Your task to perform on an android device: Go to wifi settings Image 0: 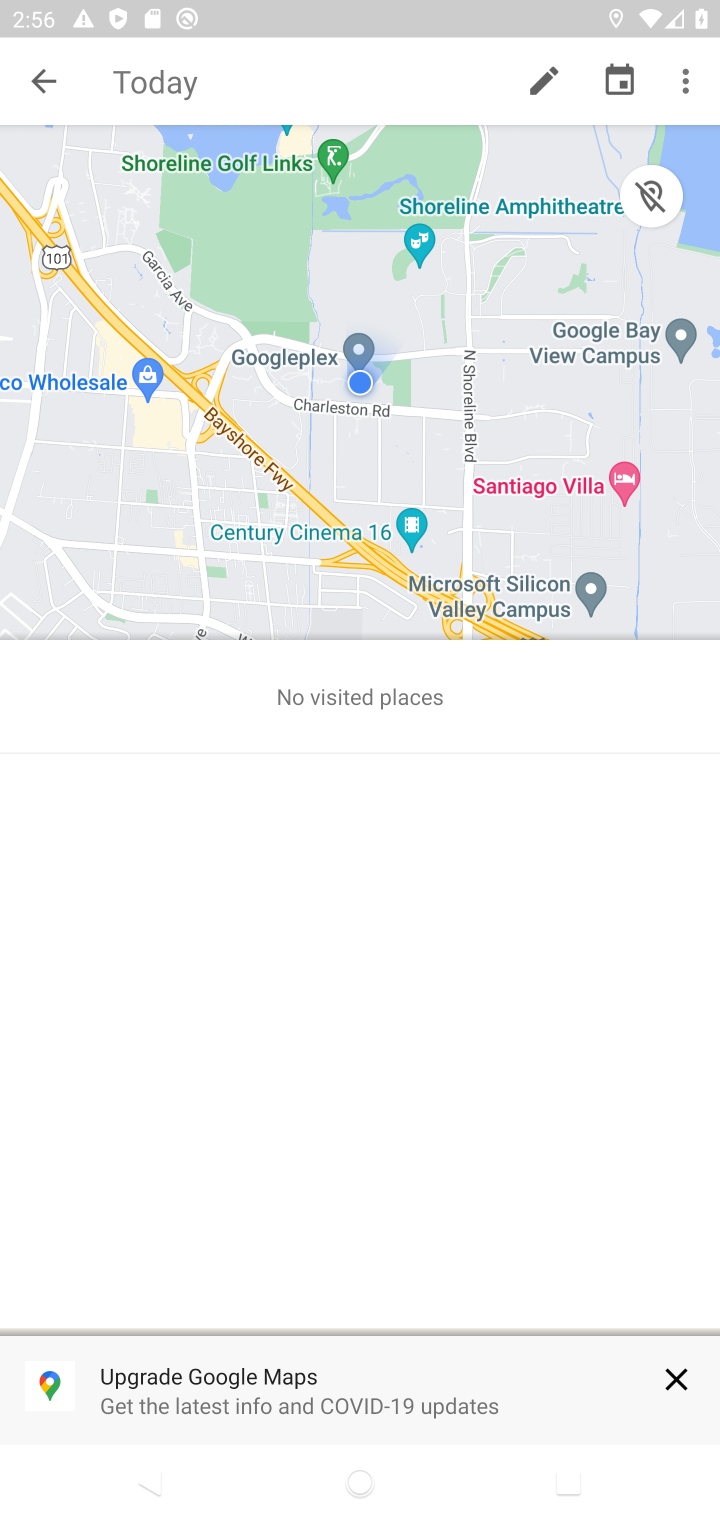
Step 0: press home button
Your task to perform on an android device: Go to wifi settings Image 1: 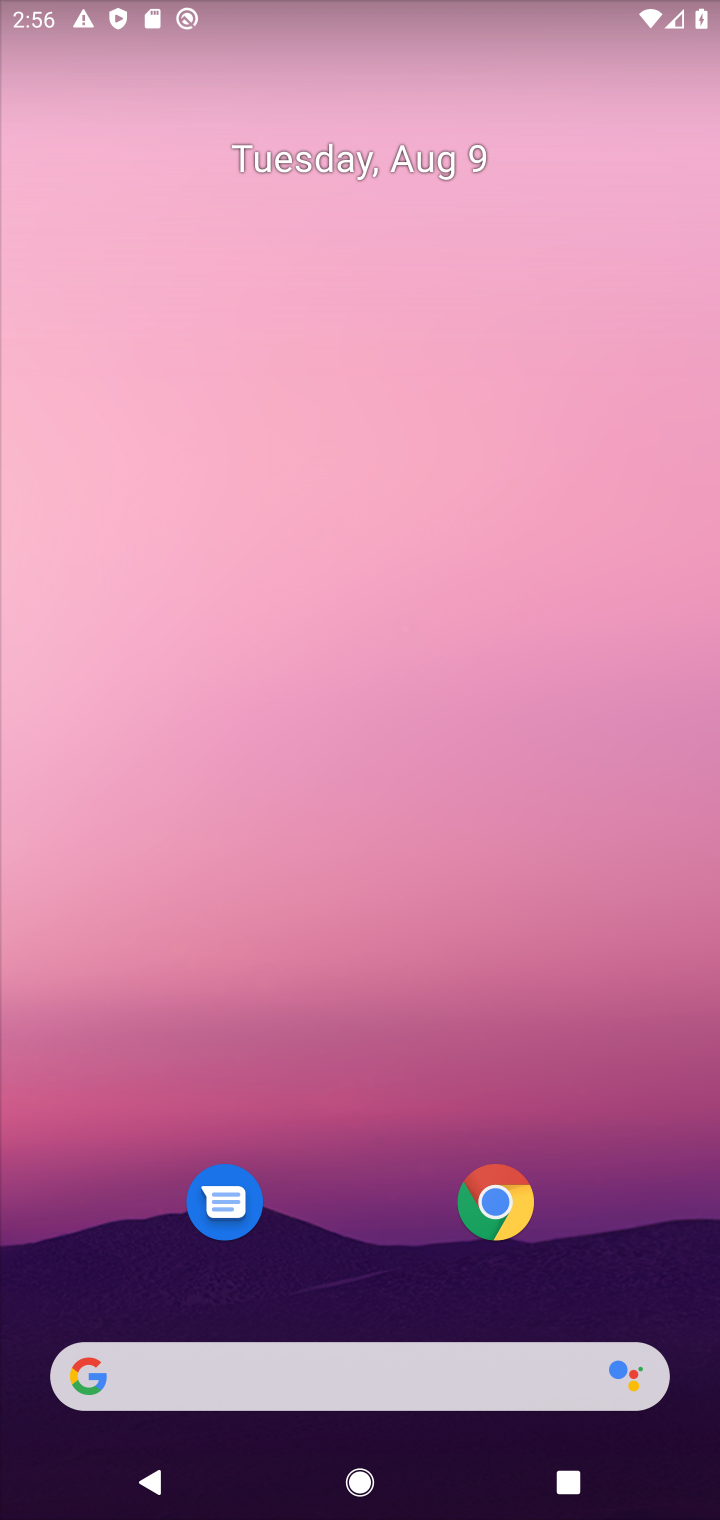
Step 1: drag from (392, 1206) to (262, 708)
Your task to perform on an android device: Go to wifi settings Image 2: 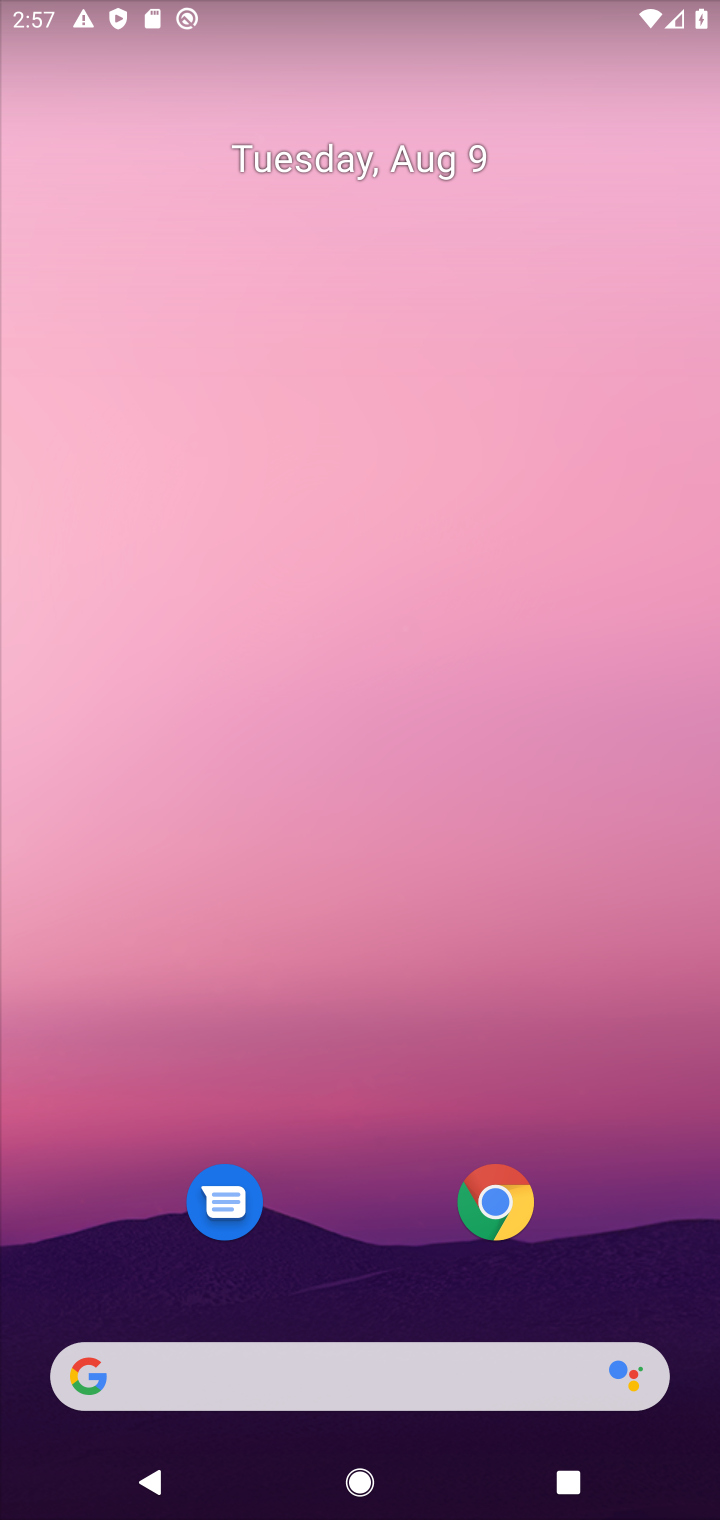
Step 2: drag from (290, 1191) to (145, 132)
Your task to perform on an android device: Go to wifi settings Image 3: 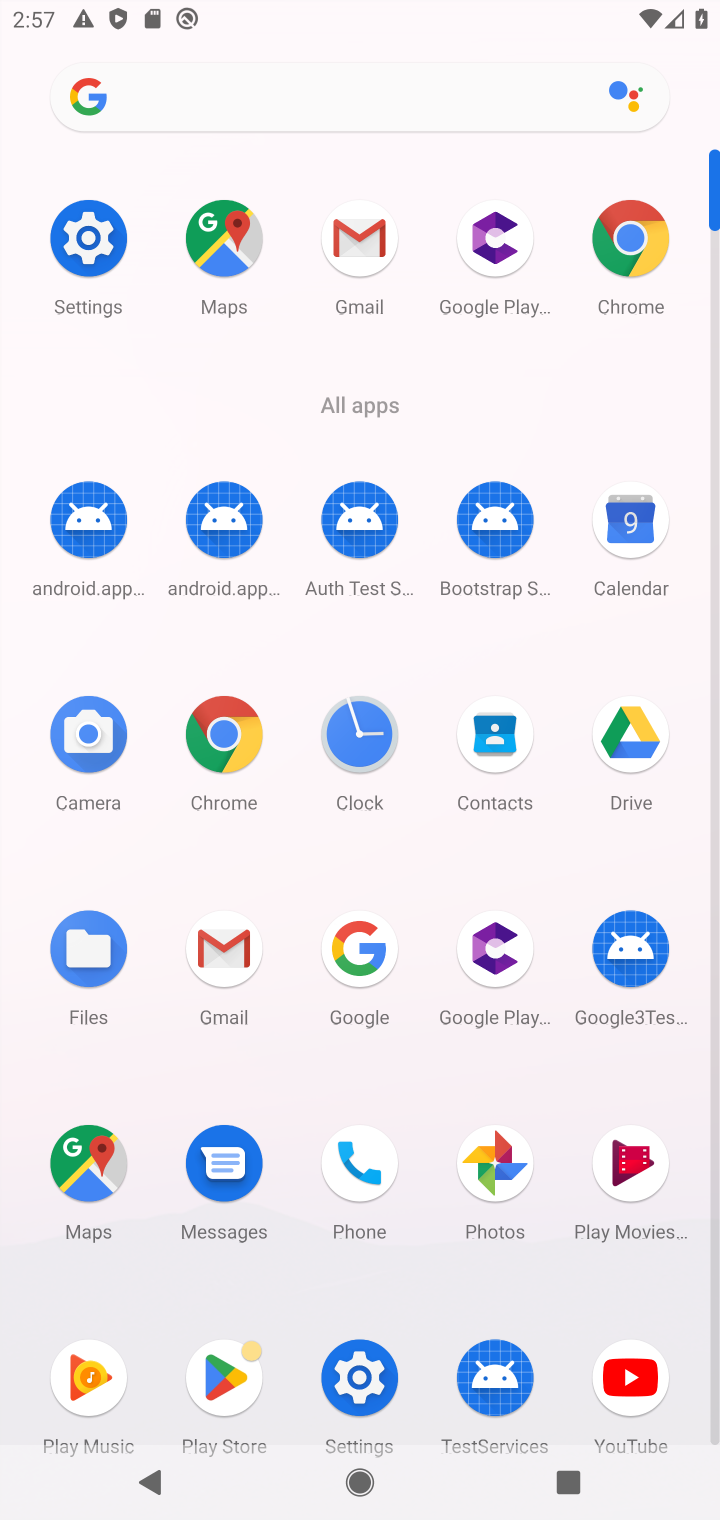
Step 3: drag from (432, 10) to (366, 1293)
Your task to perform on an android device: Go to wifi settings Image 4: 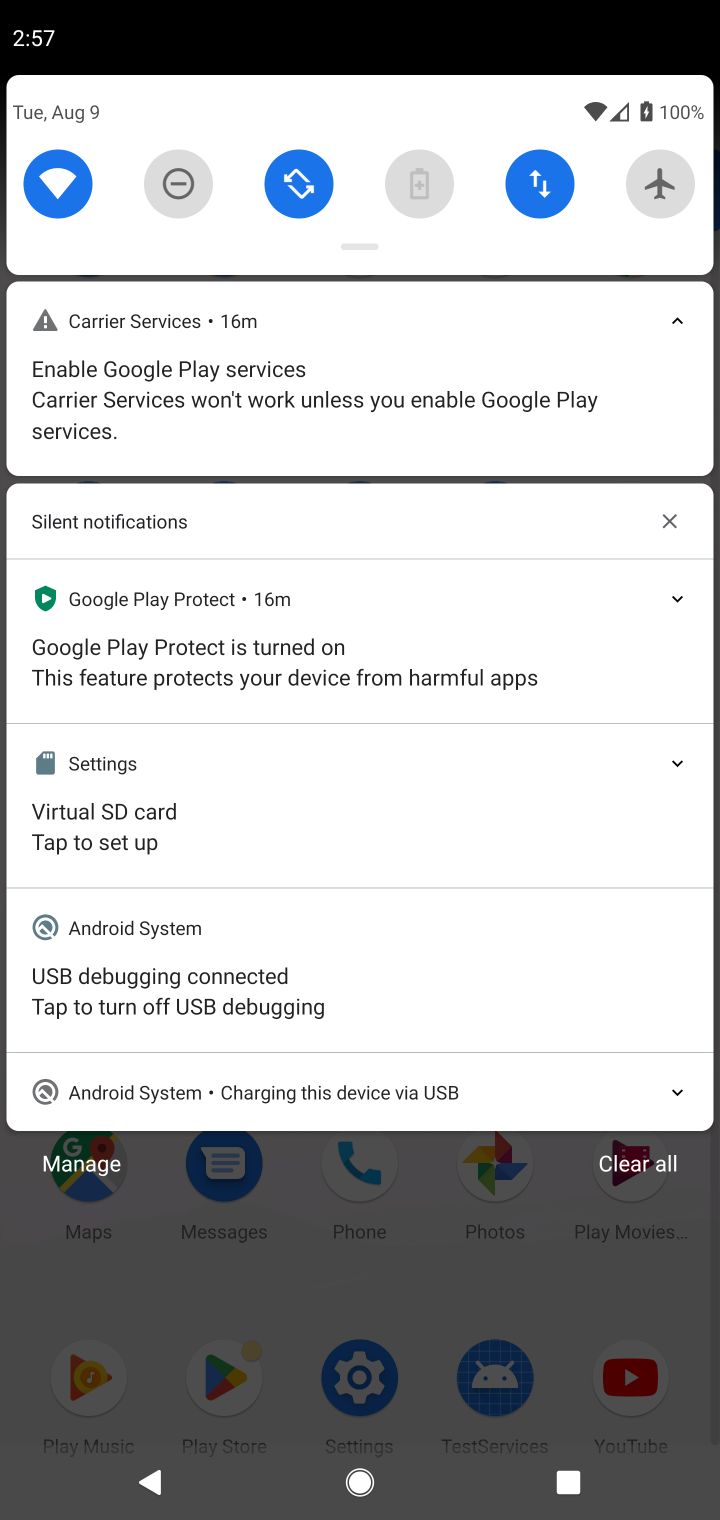
Step 4: click (80, 198)
Your task to perform on an android device: Go to wifi settings Image 5: 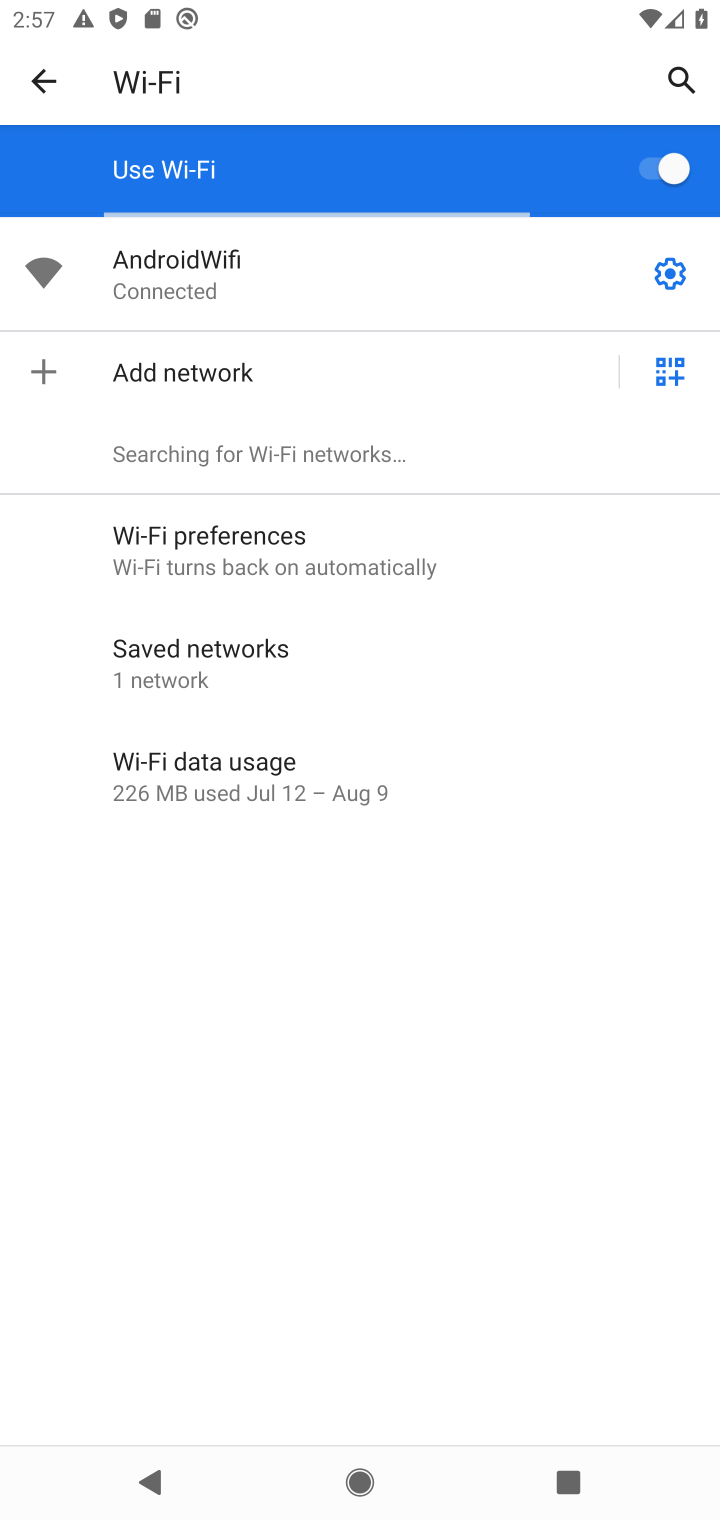
Step 5: click (683, 274)
Your task to perform on an android device: Go to wifi settings Image 6: 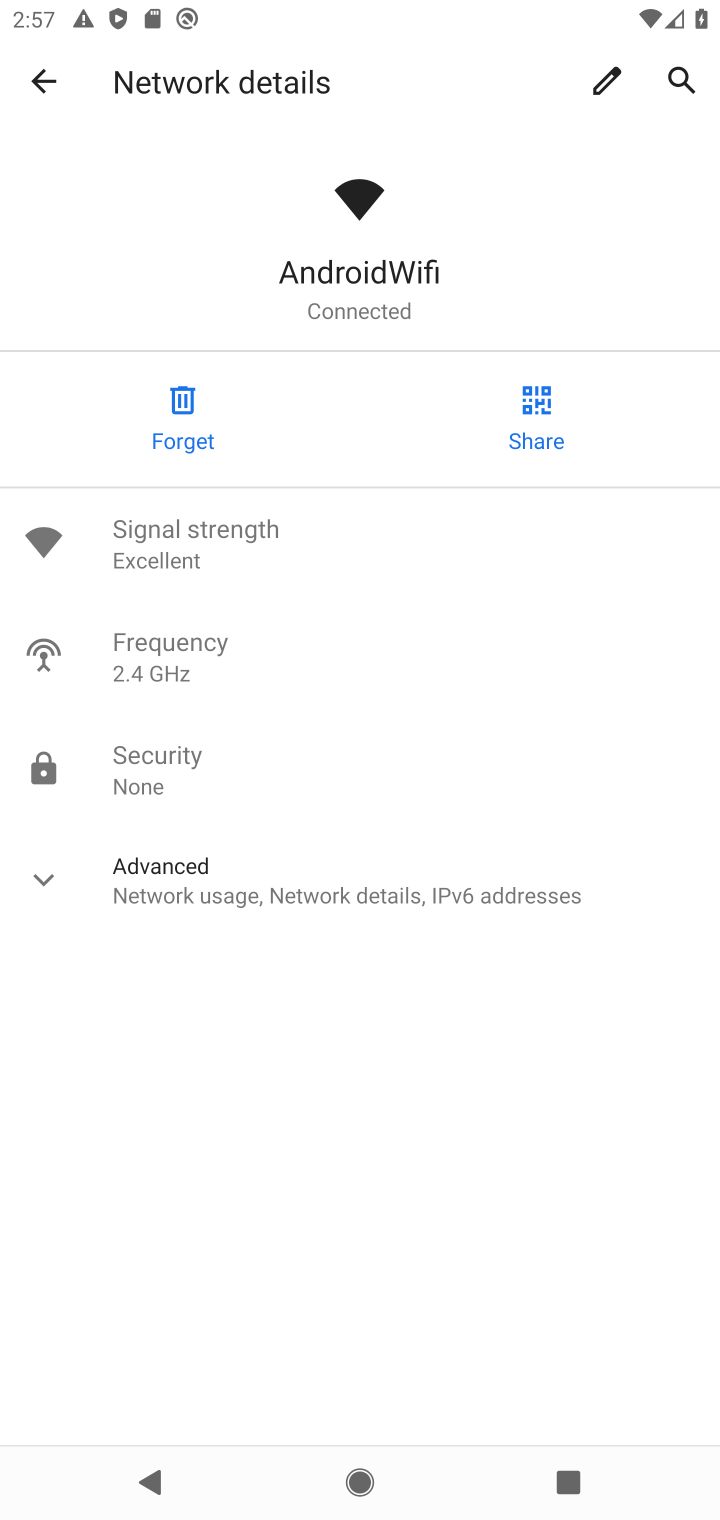
Step 6: task complete